Your task to perform on an android device: turn on bluetooth scan Image 0: 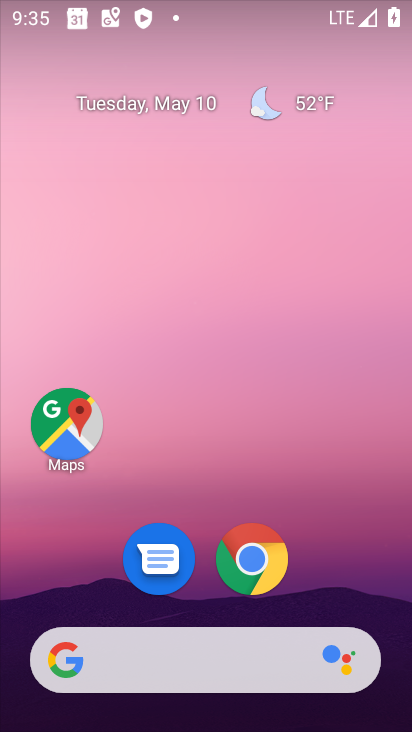
Step 0: drag from (367, 571) to (228, 0)
Your task to perform on an android device: turn on bluetooth scan Image 1: 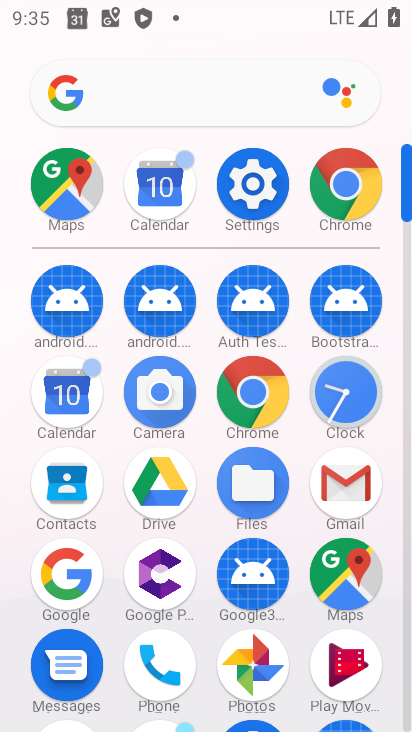
Step 1: drag from (5, 532) to (4, 149)
Your task to perform on an android device: turn on bluetooth scan Image 2: 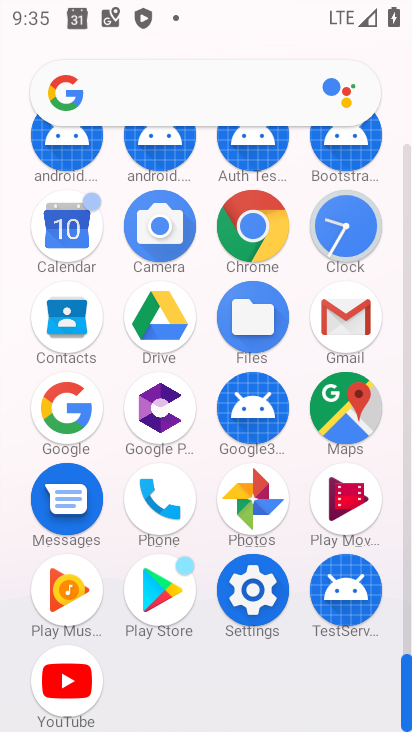
Step 2: click (249, 593)
Your task to perform on an android device: turn on bluetooth scan Image 3: 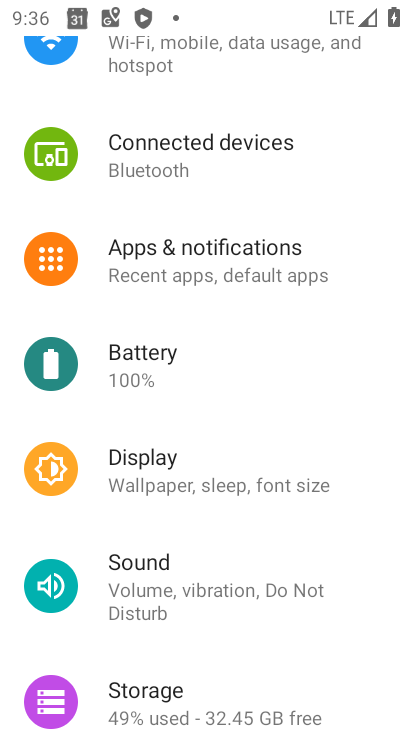
Step 3: drag from (267, 566) to (272, 348)
Your task to perform on an android device: turn on bluetooth scan Image 4: 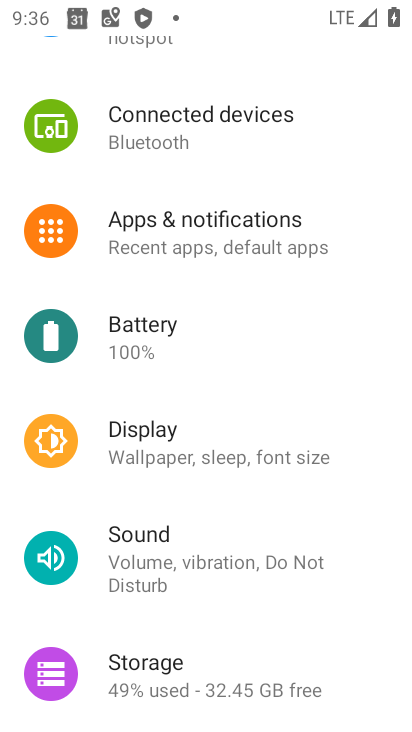
Step 4: drag from (268, 526) to (256, 157)
Your task to perform on an android device: turn on bluetooth scan Image 5: 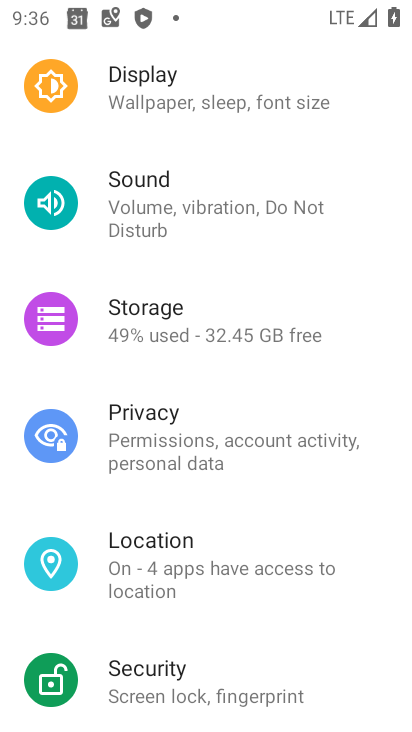
Step 5: click (229, 570)
Your task to perform on an android device: turn on bluetooth scan Image 6: 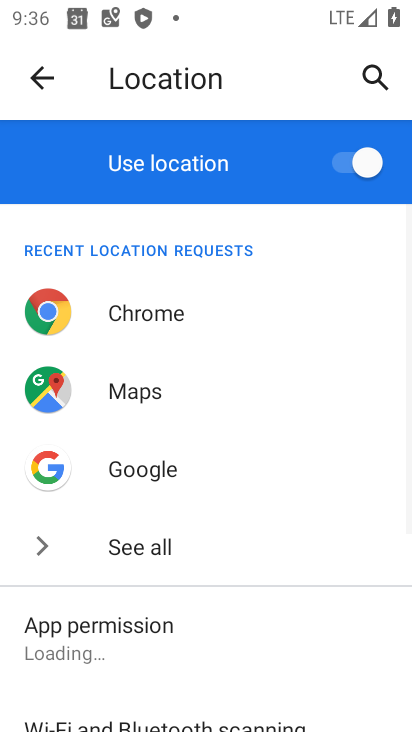
Step 6: drag from (252, 545) to (247, 147)
Your task to perform on an android device: turn on bluetooth scan Image 7: 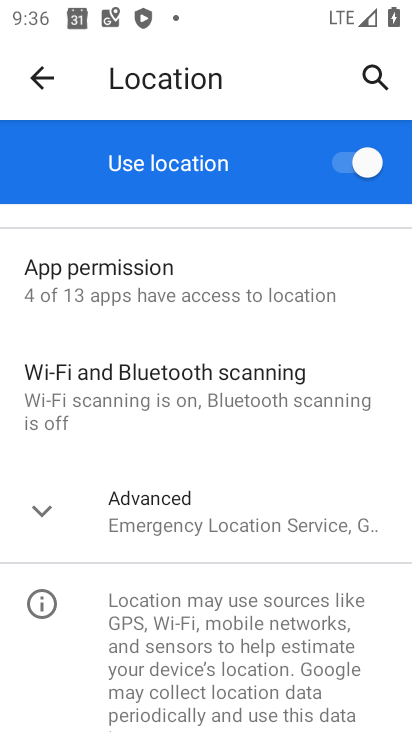
Step 7: click (177, 545)
Your task to perform on an android device: turn on bluetooth scan Image 8: 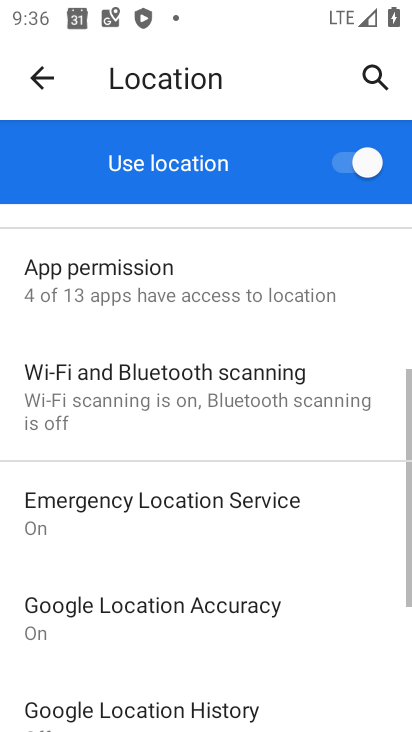
Step 8: click (224, 395)
Your task to perform on an android device: turn on bluetooth scan Image 9: 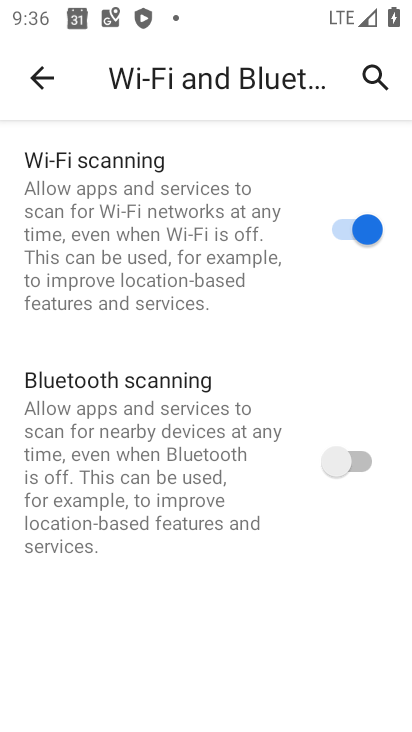
Step 9: click (362, 466)
Your task to perform on an android device: turn on bluetooth scan Image 10: 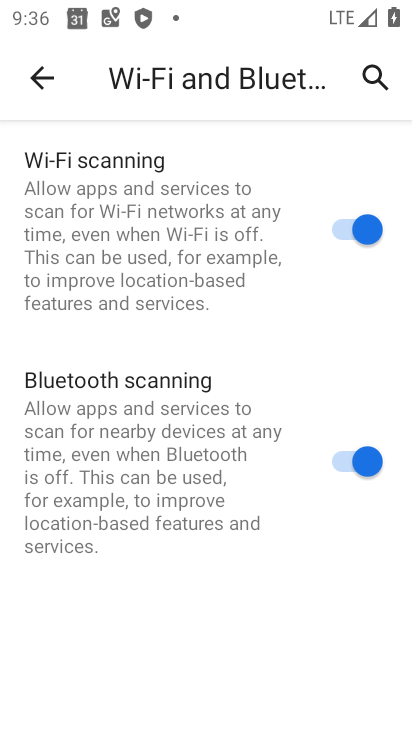
Step 10: task complete